Your task to perform on an android device: change the clock style Image 0: 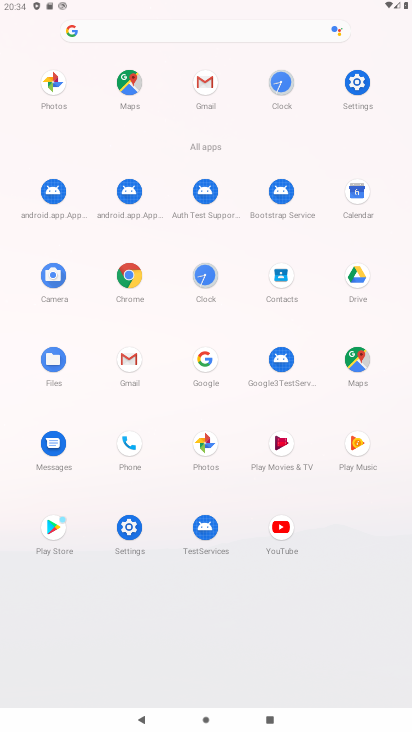
Step 0: click (281, 88)
Your task to perform on an android device: change the clock style Image 1: 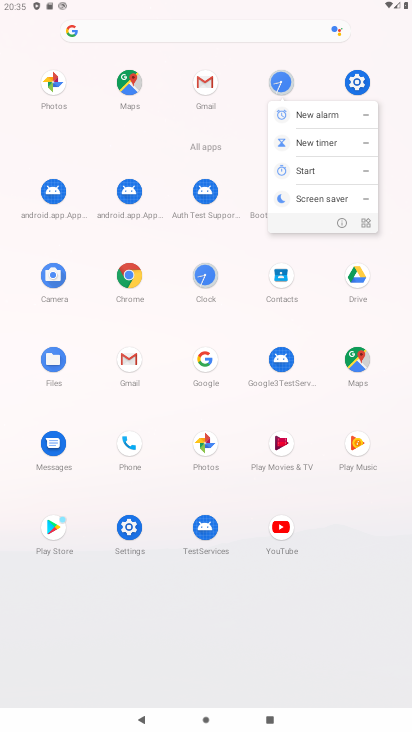
Step 1: click (280, 75)
Your task to perform on an android device: change the clock style Image 2: 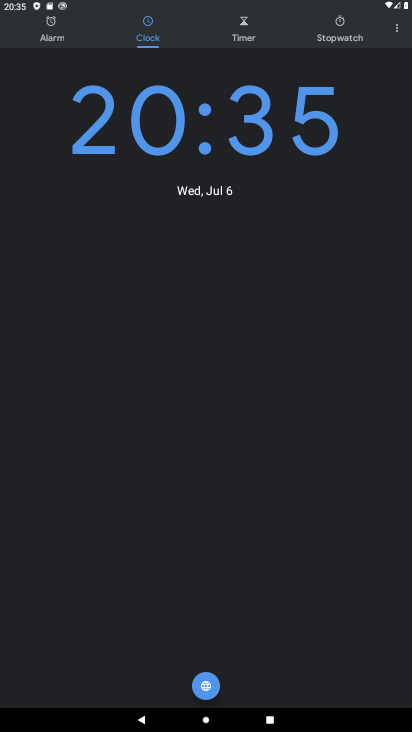
Step 2: click (400, 28)
Your task to perform on an android device: change the clock style Image 3: 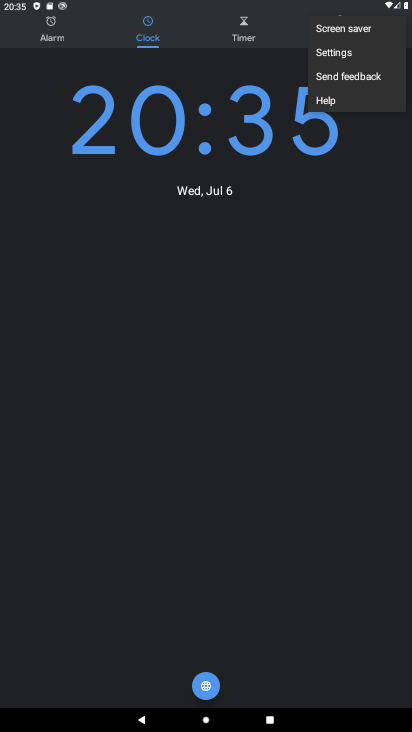
Step 3: click (347, 58)
Your task to perform on an android device: change the clock style Image 4: 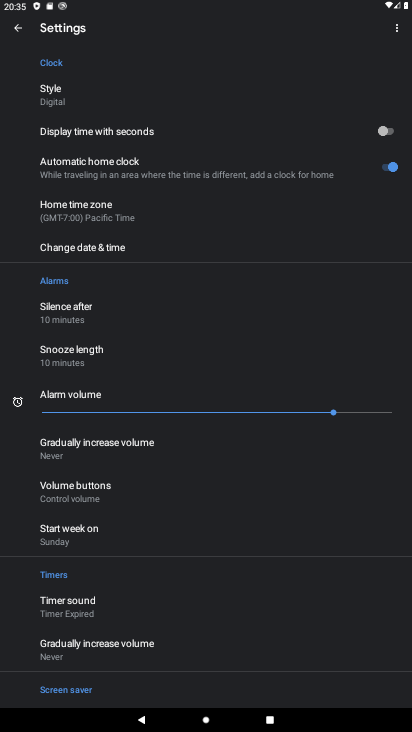
Step 4: click (62, 103)
Your task to perform on an android device: change the clock style Image 5: 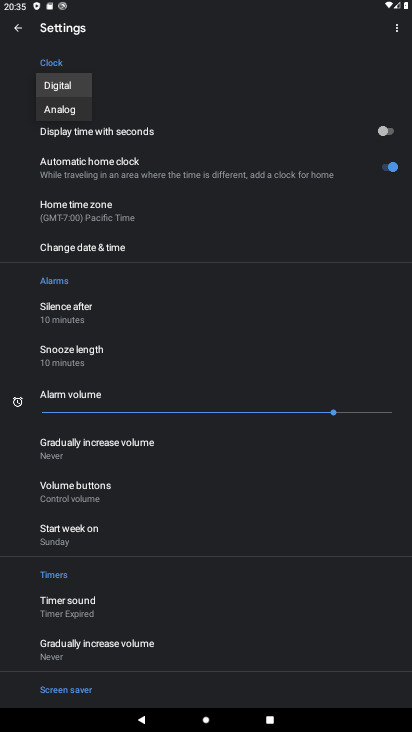
Step 5: click (69, 108)
Your task to perform on an android device: change the clock style Image 6: 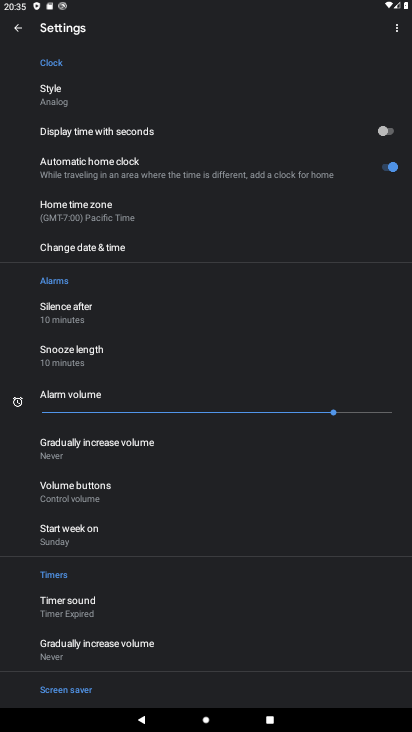
Step 6: task complete